Your task to perform on an android device: turn on sleep mode Image 0: 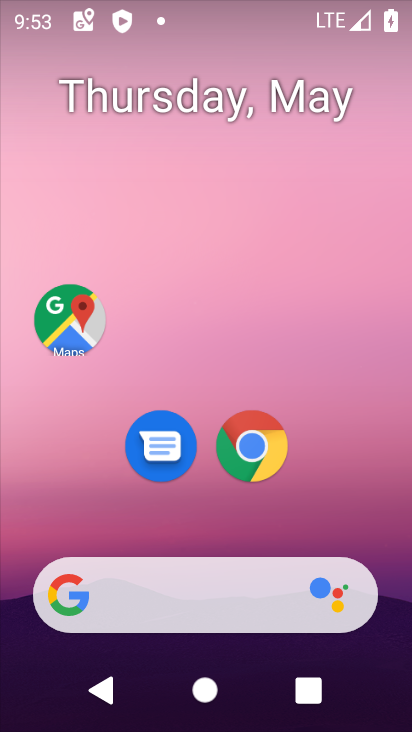
Step 0: drag from (401, 606) to (315, 0)
Your task to perform on an android device: turn on sleep mode Image 1: 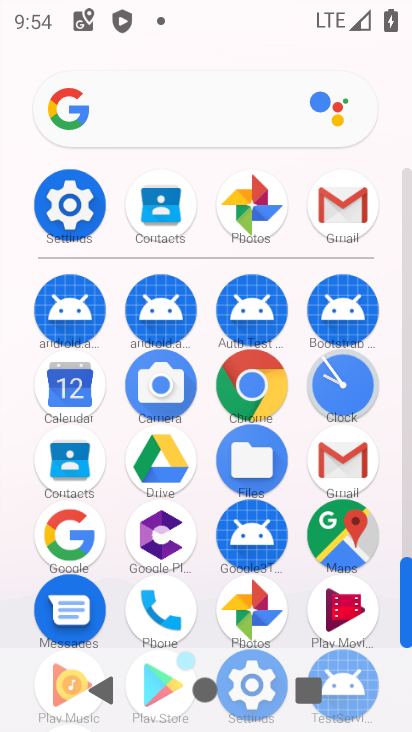
Step 1: drag from (407, 543) to (410, 503)
Your task to perform on an android device: turn on sleep mode Image 2: 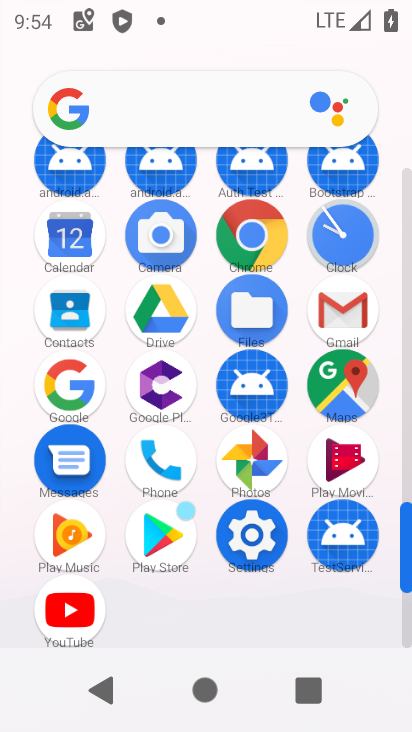
Step 2: click (252, 535)
Your task to perform on an android device: turn on sleep mode Image 3: 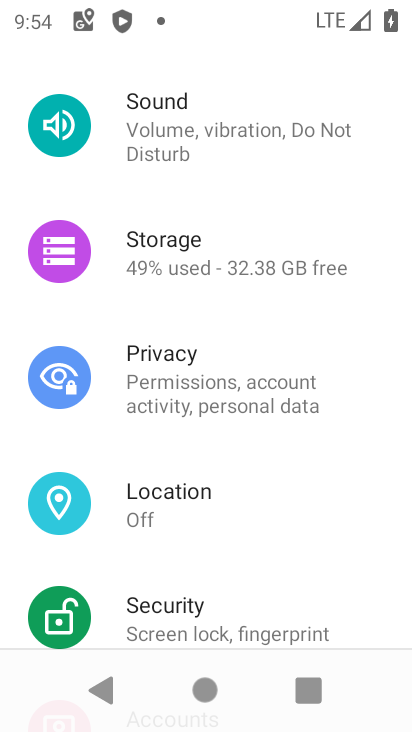
Step 3: drag from (366, 199) to (356, 474)
Your task to perform on an android device: turn on sleep mode Image 4: 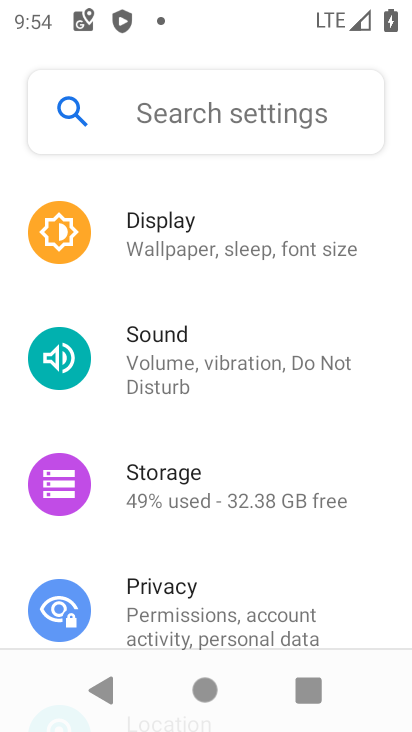
Step 4: click (238, 240)
Your task to perform on an android device: turn on sleep mode Image 5: 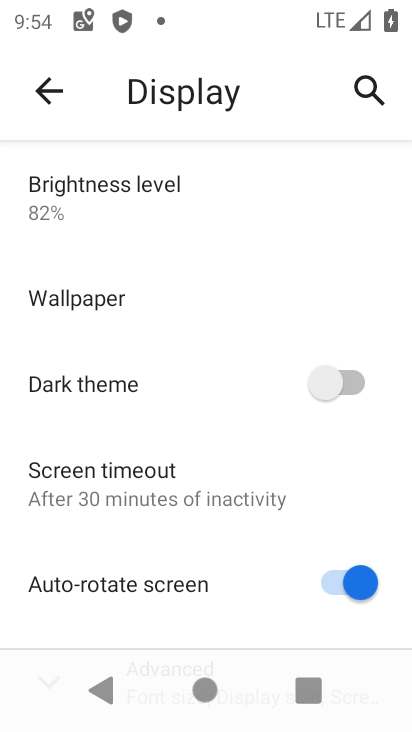
Step 5: drag from (214, 547) to (258, 240)
Your task to perform on an android device: turn on sleep mode Image 6: 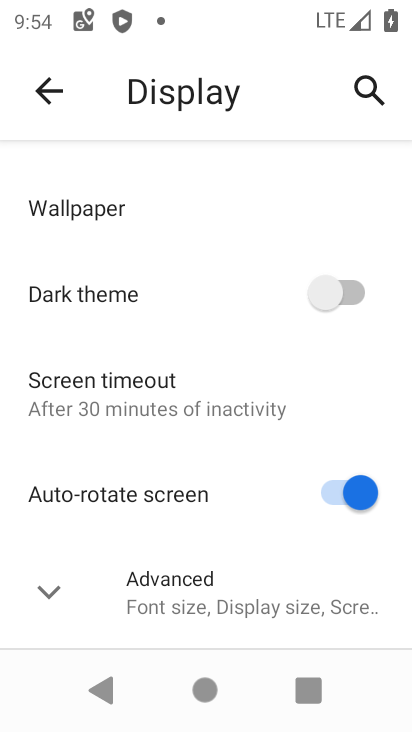
Step 6: click (50, 590)
Your task to perform on an android device: turn on sleep mode Image 7: 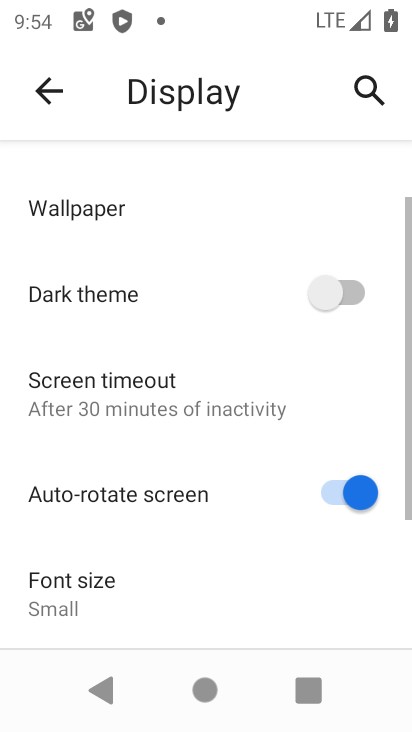
Step 7: task complete